Your task to perform on an android device: Open Chrome and go to the settings page Image 0: 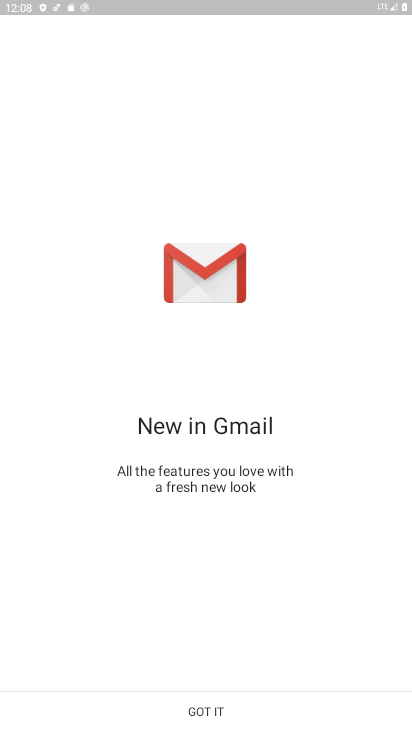
Step 0: press home button
Your task to perform on an android device: Open Chrome and go to the settings page Image 1: 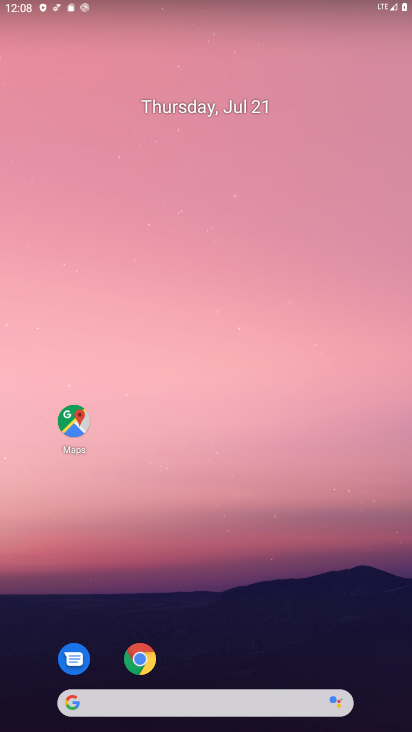
Step 1: click (138, 660)
Your task to perform on an android device: Open Chrome and go to the settings page Image 2: 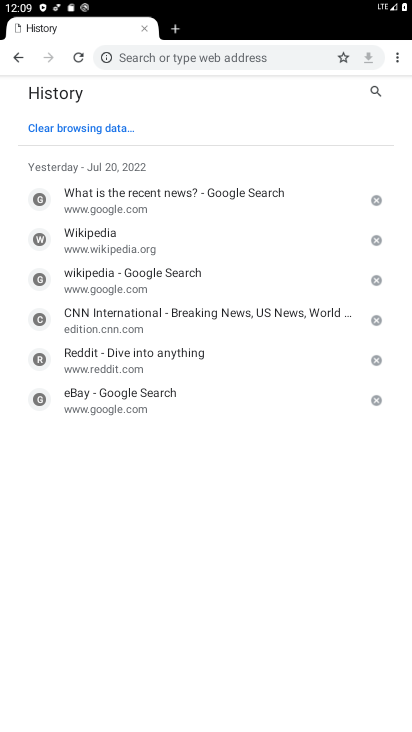
Step 2: click (394, 58)
Your task to perform on an android device: Open Chrome and go to the settings page Image 3: 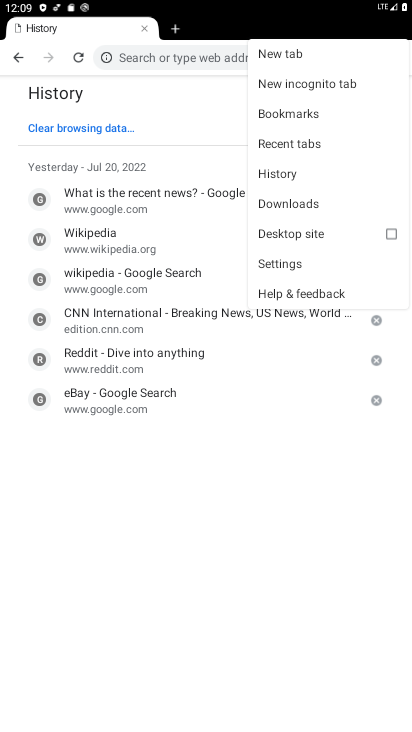
Step 3: click (281, 265)
Your task to perform on an android device: Open Chrome and go to the settings page Image 4: 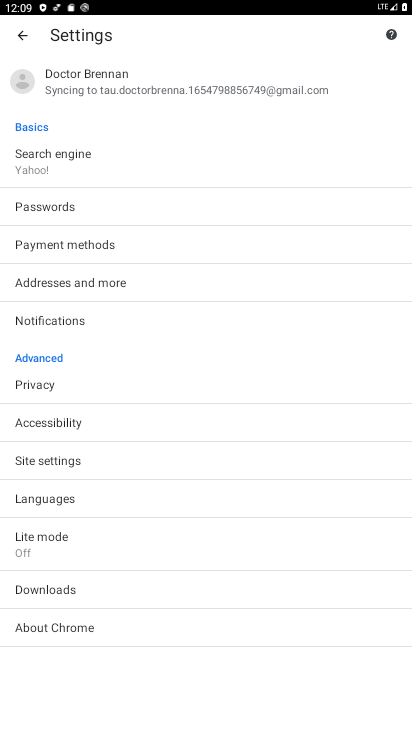
Step 4: task complete